Your task to perform on an android device: change text size in settings app Image 0: 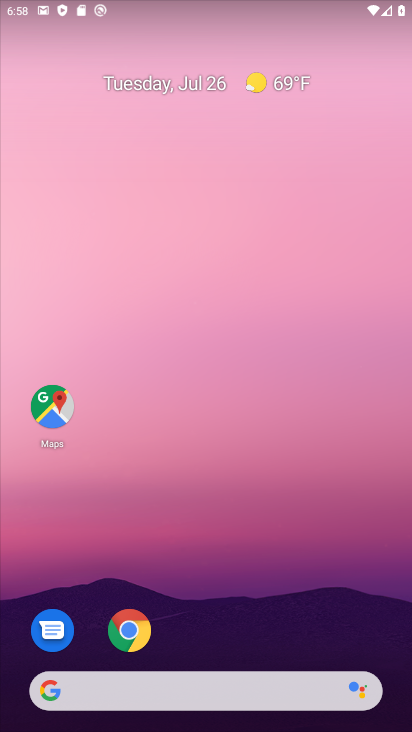
Step 0: drag from (219, 626) to (294, 151)
Your task to perform on an android device: change text size in settings app Image 1: 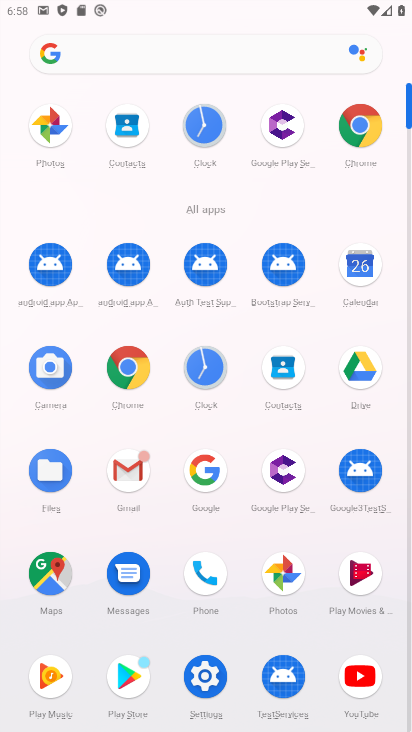
Step 1: click (204, 689)
Your task to perform on an android device: change text size in settings app Image 2: 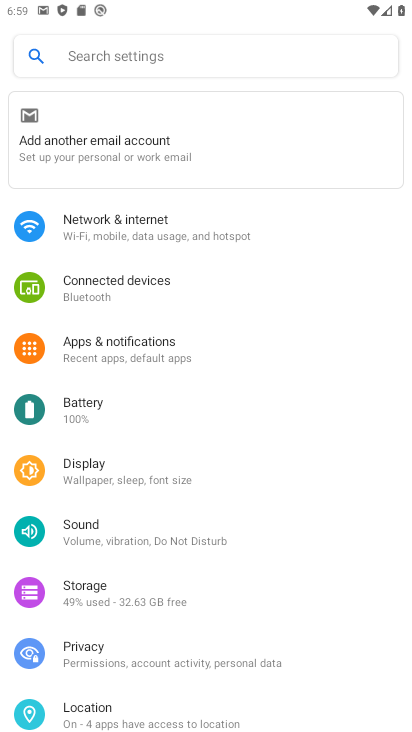
Step 2: click (188, 465)
Your task to perform on an android device: change text size in settings app Image 3: 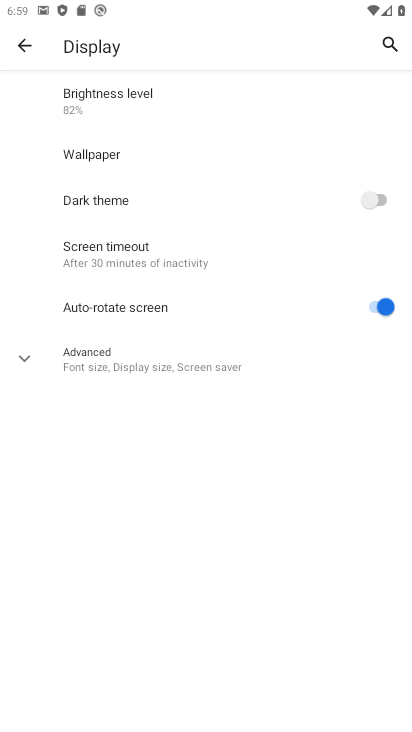
Step 3: click (212, 382)
Your task to perform on an android device: change text size in settings app Image 4: 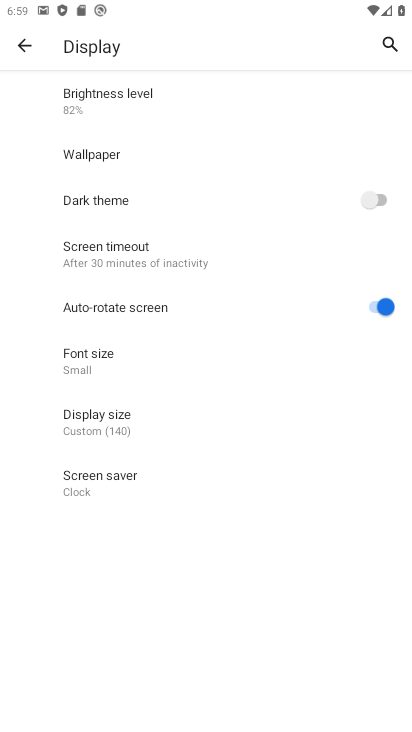
Step 4: click (144, 369)
Your task to perform on an android device: change text size in settings app Image 5: 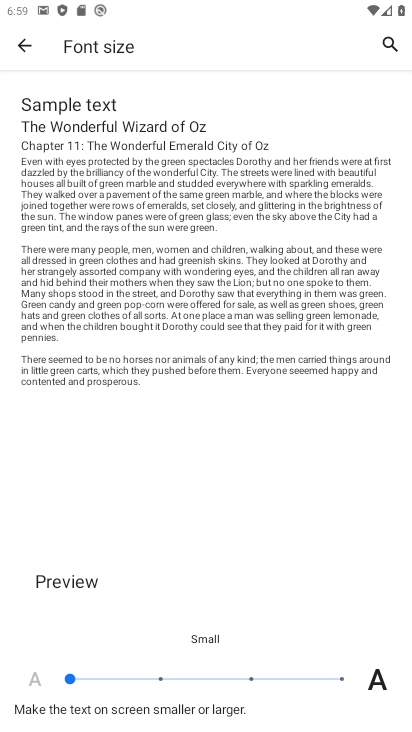
Step 5: click (164, 679)
Your task to perform on an android device: change text size in settings app Image 6: 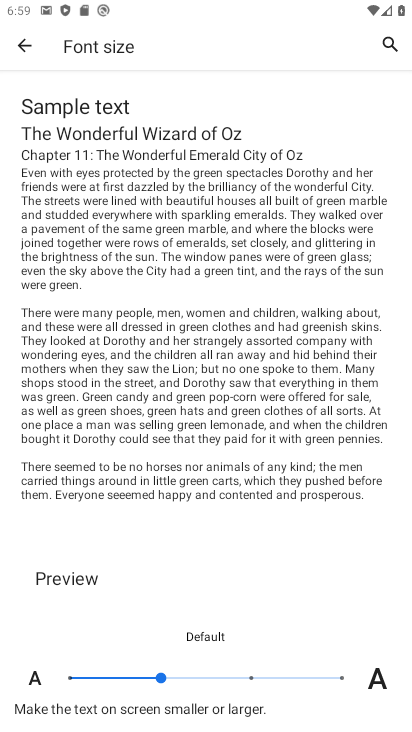
Step 6: task complete